Your task to perform on an android device: Open eBay Image 0: 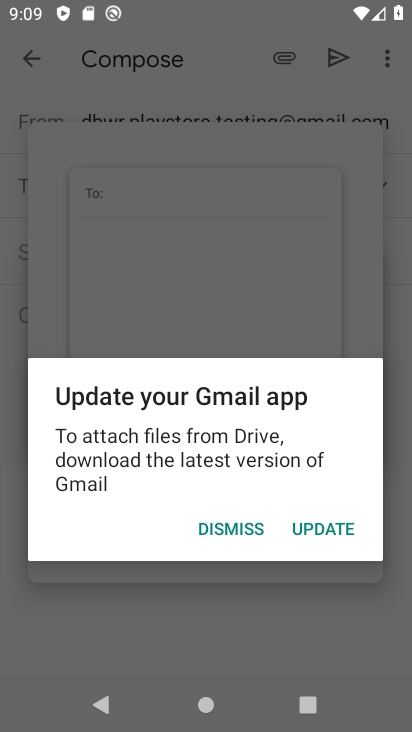
Step 0: press home button
Your task to perform on an android device: Open eBay Image 1: 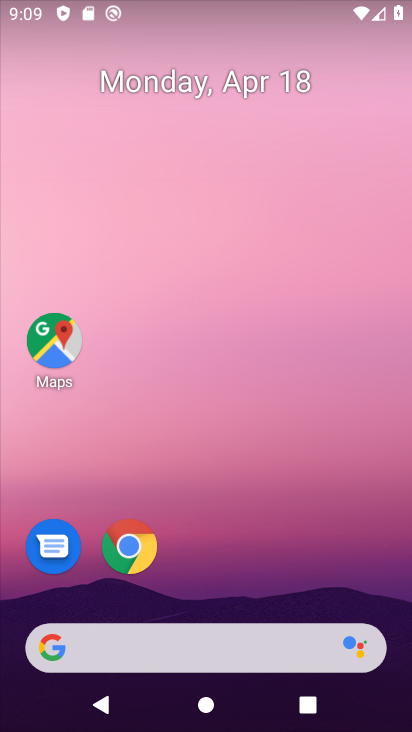
Step 1: click (144, 549)
Your task to perform on an android device: Open eBay Image 2: 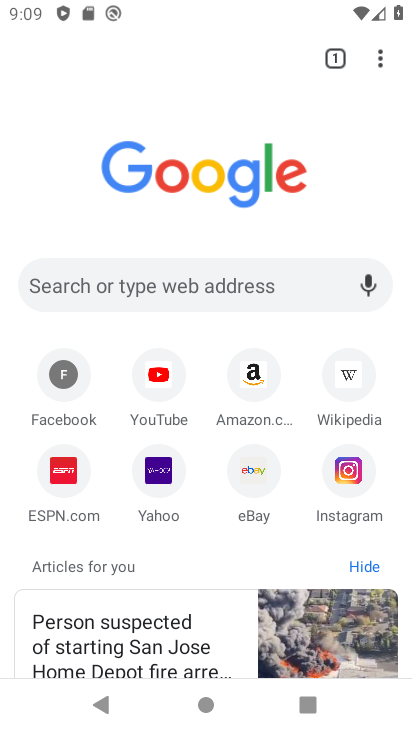
Step 2: click (264, 472)
Your task to perform on an android device: Open eBay Image 3: 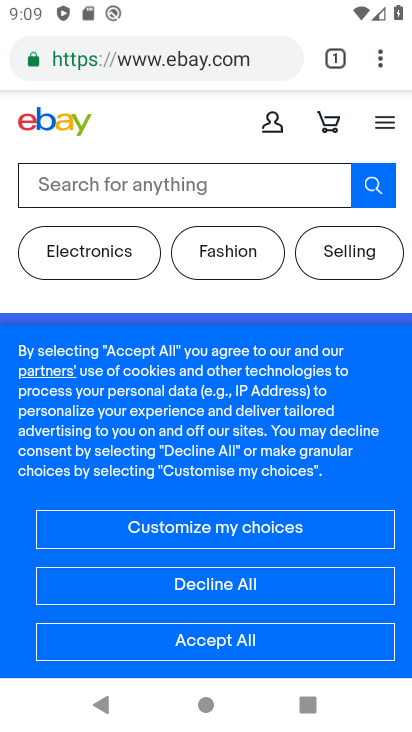
Step 3: task complete